Your task to perform on an android device: Open Google Maps Image 0: 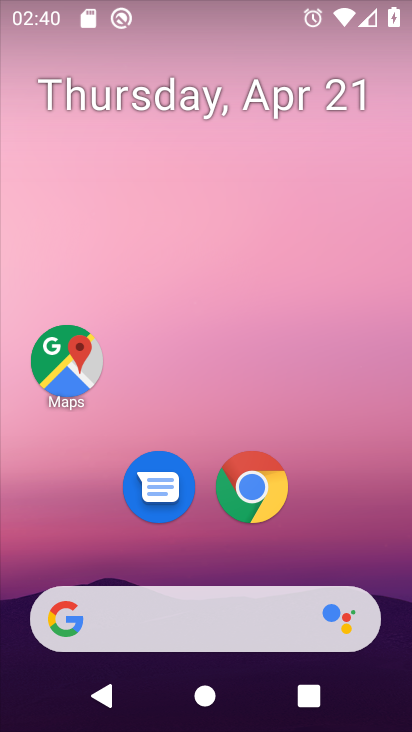
Step 0: click (284, 160)
Your task to perform on an android device: Open Google Maps Image 1: 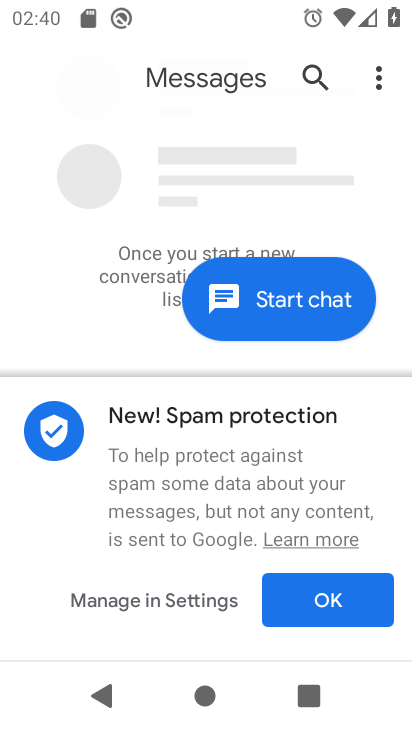
Step 1: click (156, 612)
Your task to perform on an android device: Open Google Maps Image 2: 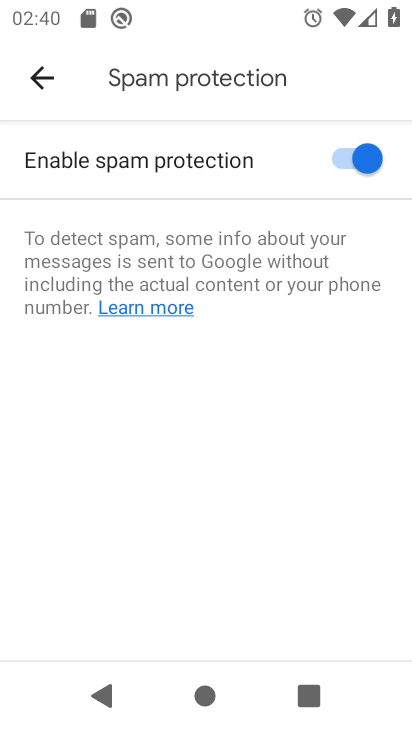
Step 2: drag from (277, 370) to (316, 37)
Your task to perform on an android device: Open Google Maps Image 3: 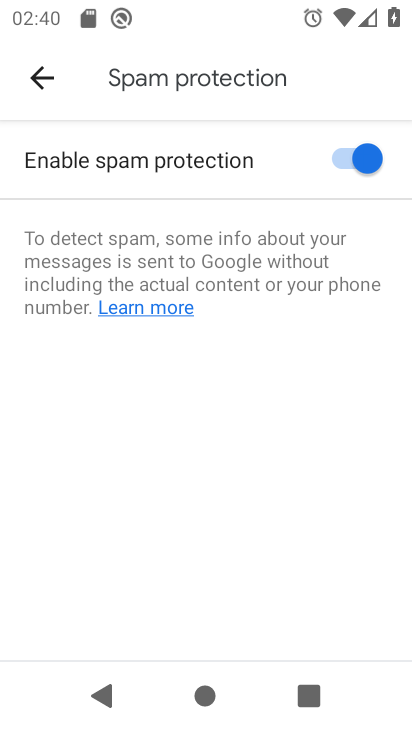
Step 3: click (200, 255)
Your task to perform on an android device: Open Google Maps Image 4: 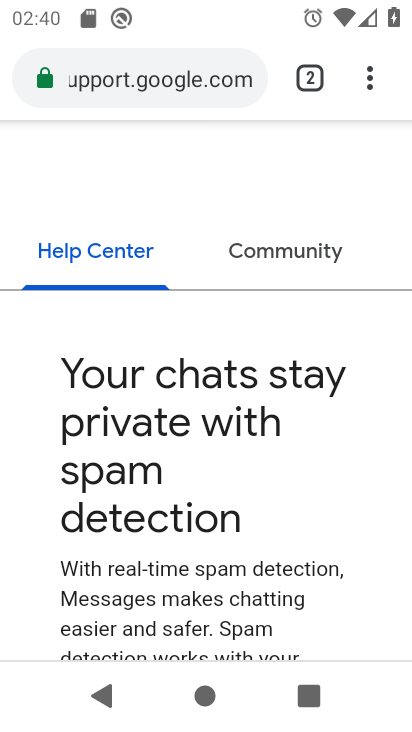
Step 4: press home button
Your task to perform on an android device: Open Google Maps Image 5: 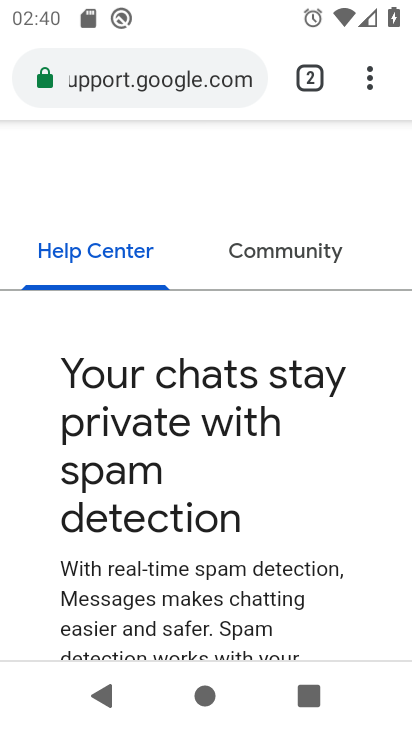
Step 5: drag from (183, 525) to (279, 67)
Your task to perform on an android device: Open Google Maps Image 6: 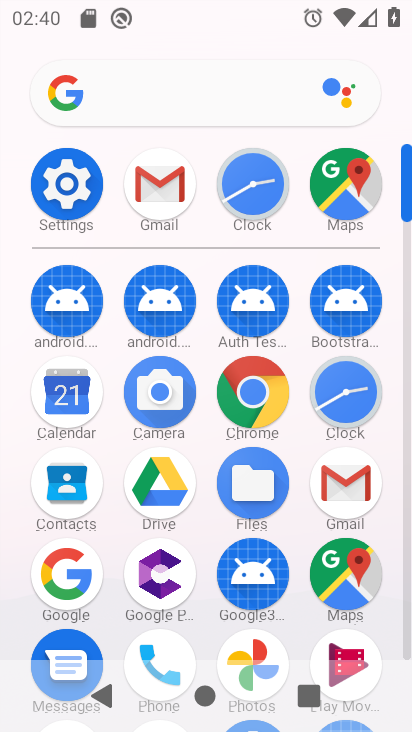
Step 6: click (341, 567)
Your task to perform on an android device: Open Google Maps Image 7: 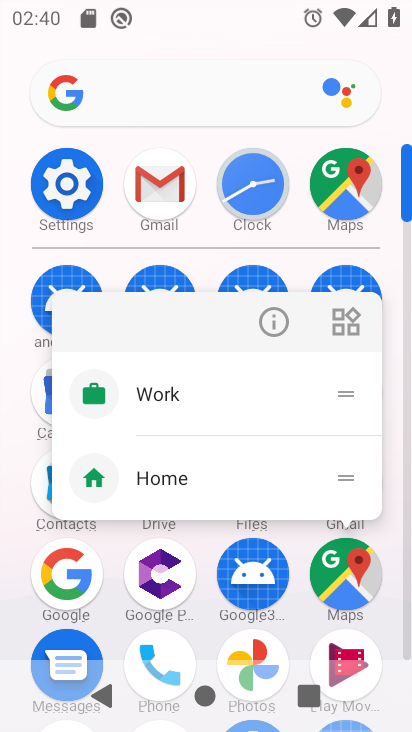
Step 7: click (276, 323)
Your task to perform on an android device: Open Google Maps Image 8: 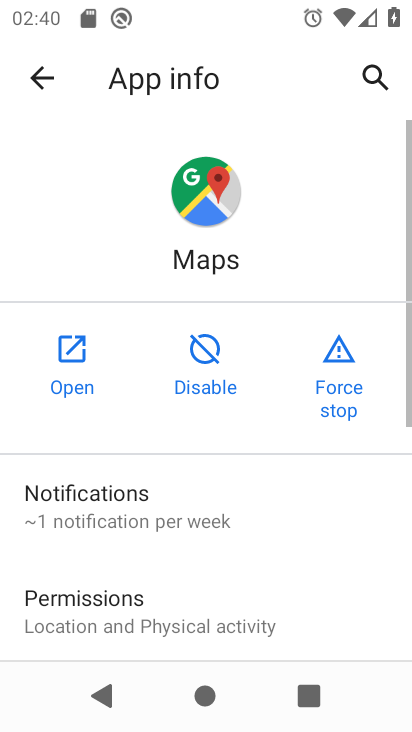
Step 8: click (69, 336)
Your task to perform on an android device: Open Google Maps Image 9: 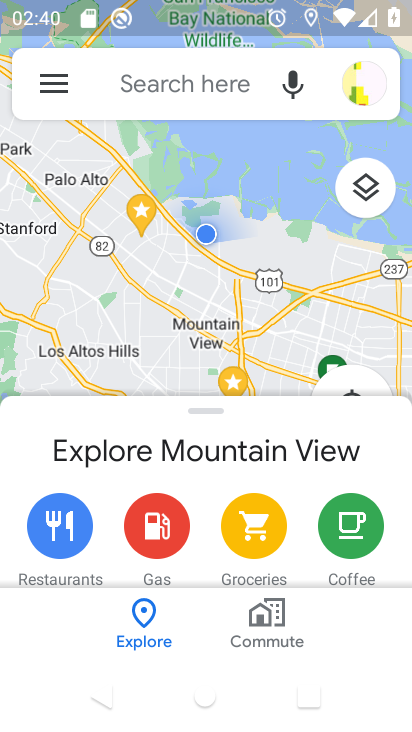
Step 9: task complete